Your task to perform on an android device: Go to Maps Image 0: 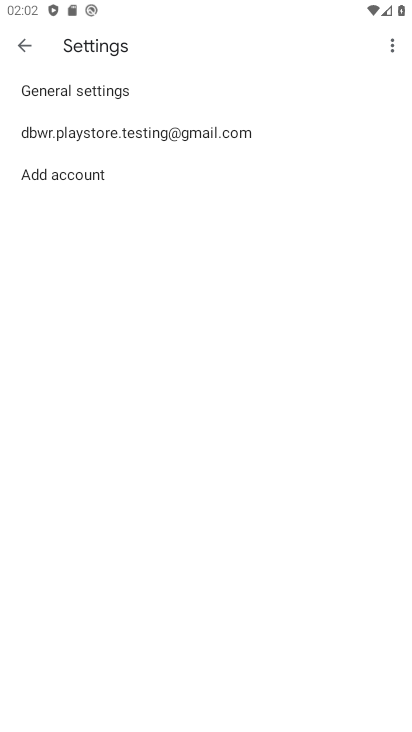
Step 0: press home button
Your task to perform on an android device: Go to Maps Image 1: 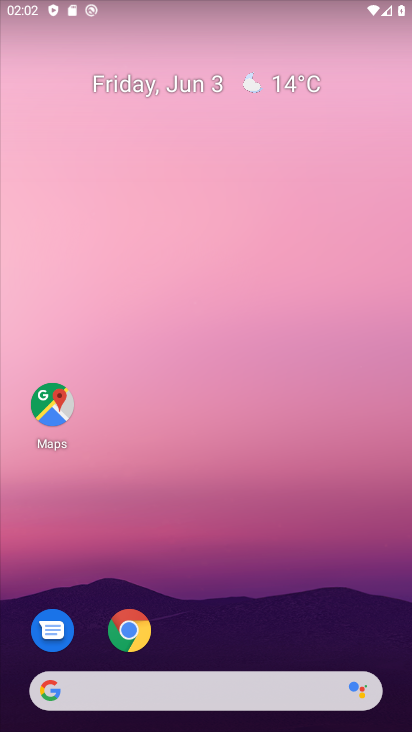
Step 1: click (43, 401)
Your task to perform on an android device: Go to Maps Image 2: 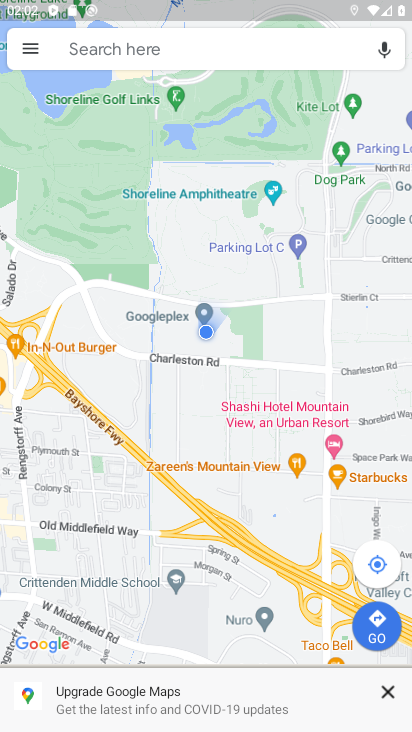
Step 2: task complete